Your task to perform on an android device: read, delete, or share a saved page in the chrome app Image 0: 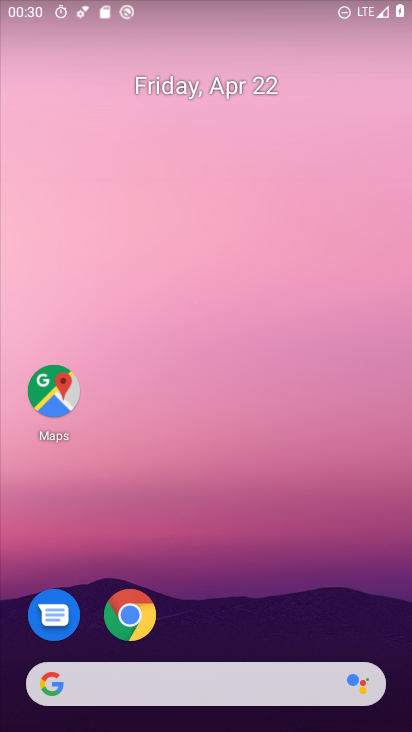
Step 0: drag from (221, 645) to (249, 53)
Your task to perform on an android device: read, delete, or share a saved page in the chrome app Image 1: 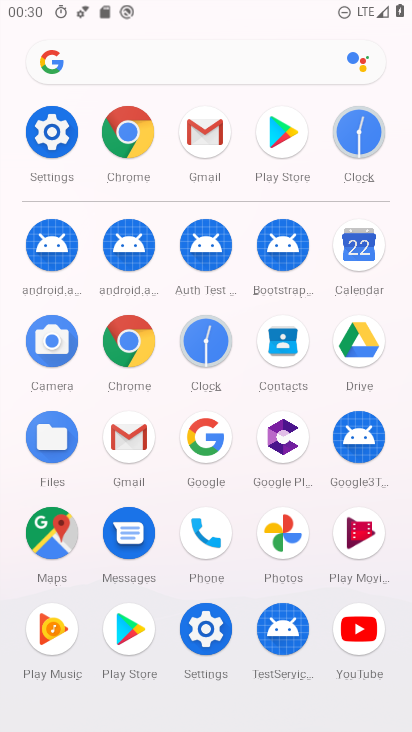
Step 1: click (55, 529)
Your task to perform on an android device: read, delete, or share a saved page in the chrome app Image 2: 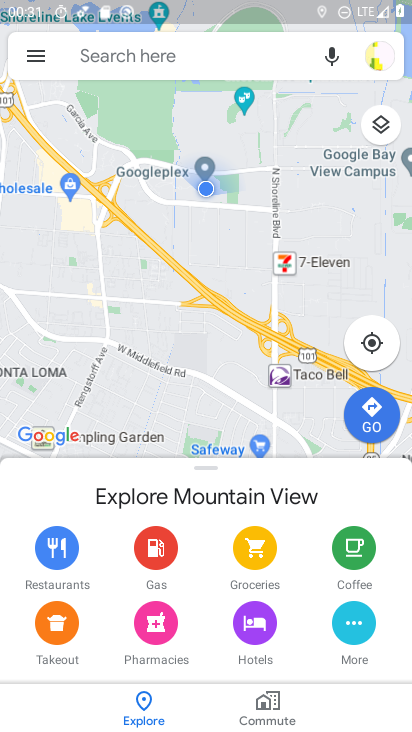
Step 2: press home button
Your task to perform on an android device: read, delete, or share a saved page in the chrome app Image 3: 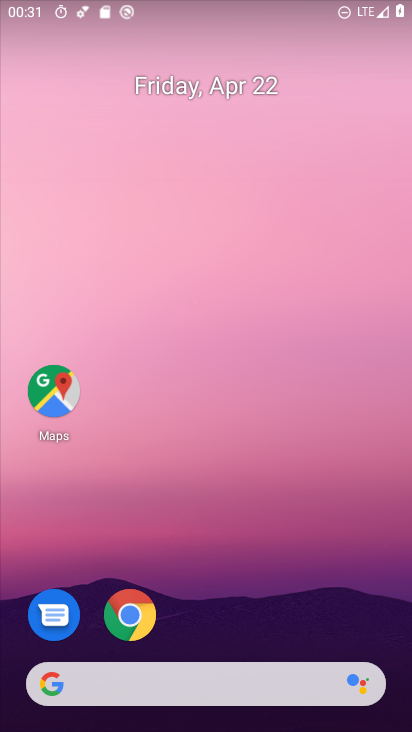
Step 3: drag from (246, 657) to (248, 27)
Your task to perform on an android device: read, delete, or share a saved page in the chrome app Image 4: 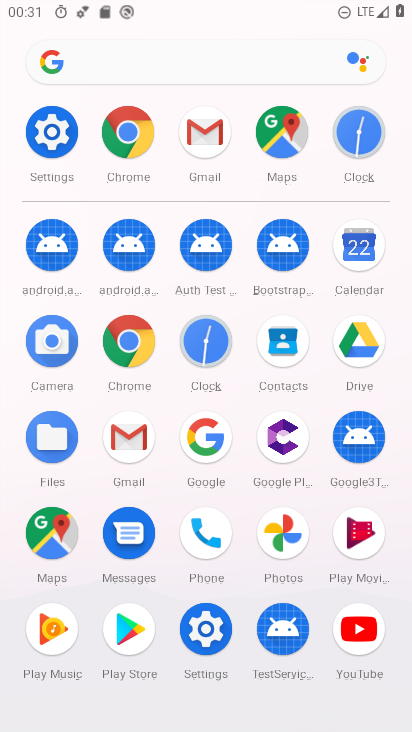
Step 4: click (129, 337)
Your task to perform on an android device: read, delete, or share a saved page in the chrome app Image 5: 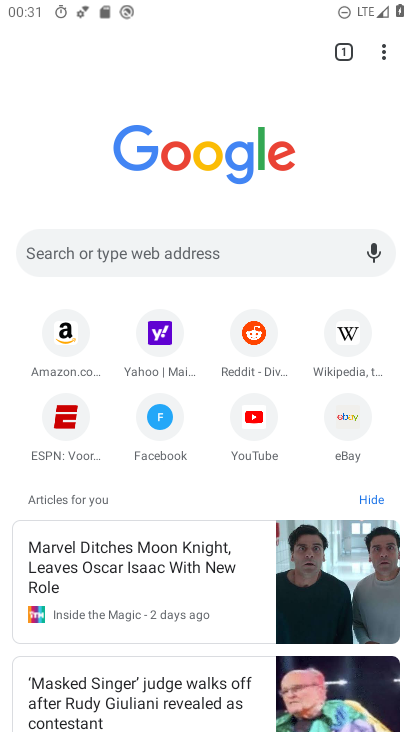
Step 5: click (381, 48)
Your task to perform on an android device: read, delete, or share a saved page in the chrome app Image 6: 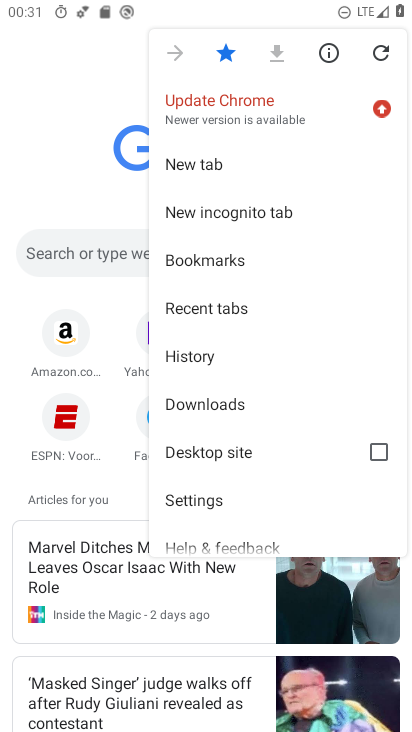
Step 6: click (250, 403)
Your task to perform on an android device: read, delete, or share a saved page in the chrome app Image 7: 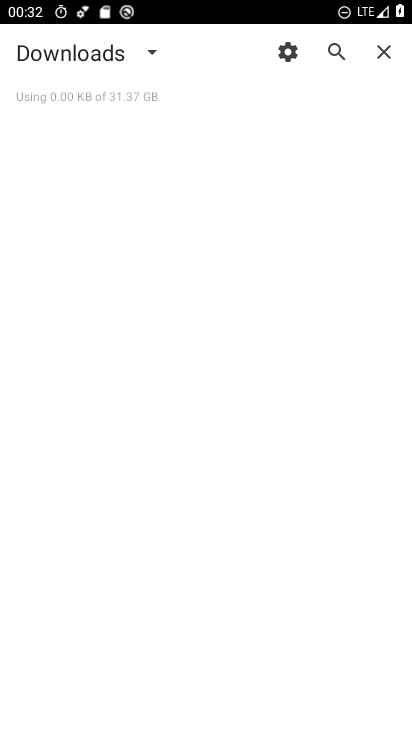
Step 7: click (383, 51)
Your task to perform on an android device: read, delete, or share a saved page in the chrome app Image 8: 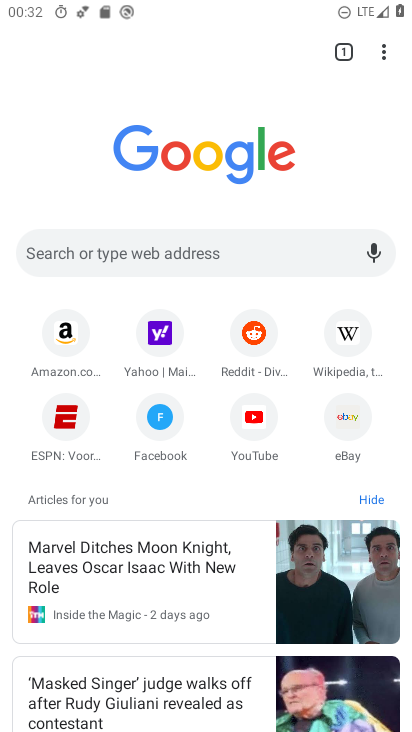
Step 8: task complete